Your task to perform on an android device: delete location history Image 0: 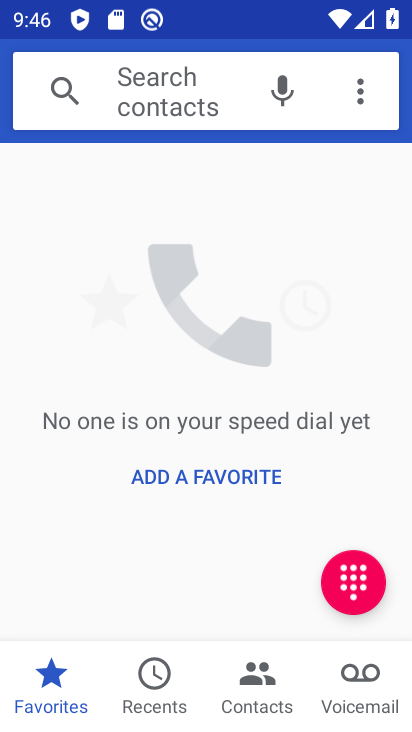
Step 0: task complete